Your task to perform on an android device: check storage Image 0: 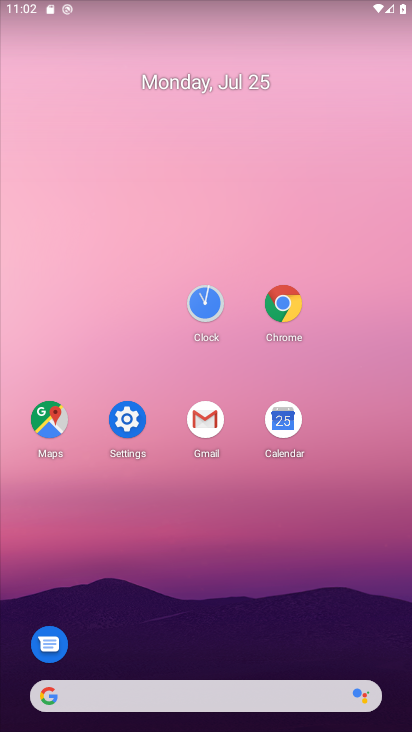
Step 0: click (274, 426)
Your task to perform on an android device: check storage Image 1: 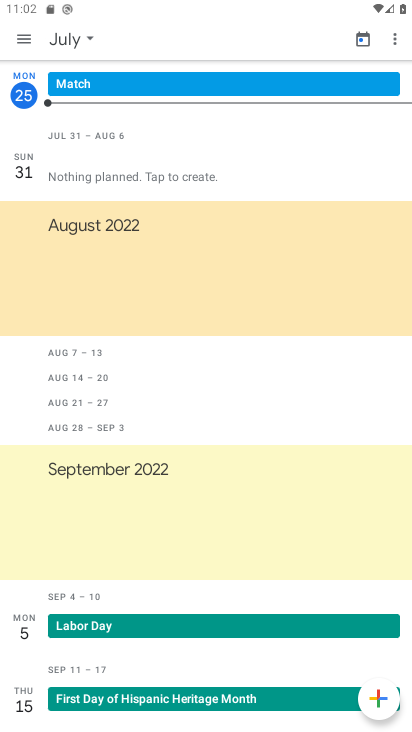
Step 1: press home button
Your task to perform on an android device: check storage Image 2: 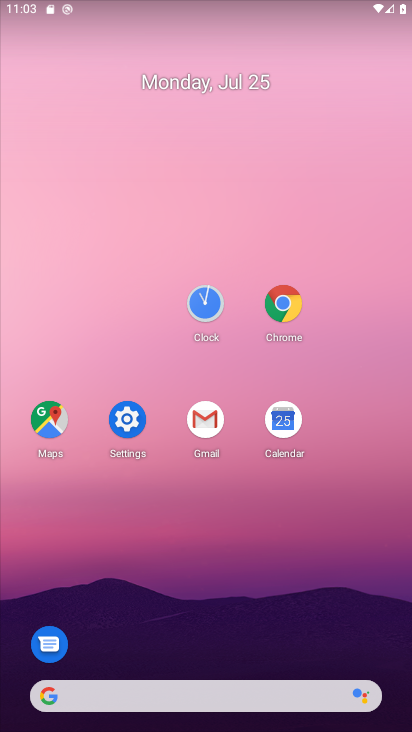
Step 2: click (132, 428)
Your task to perform on an android device: check storage Image 3: 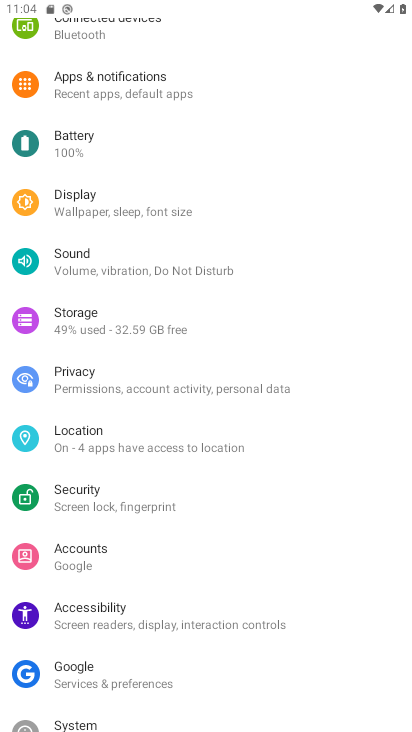
Step 3: click (93, 319)
Your task to perform on an android device: check storage Image 4: 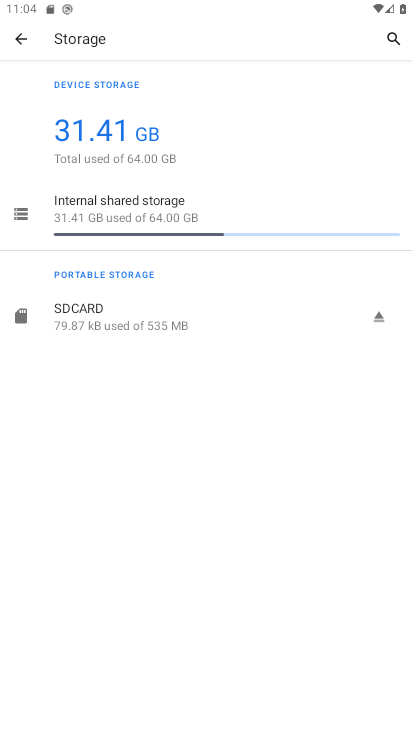
Step 4: task complete